Your task to perform on an android device: turn on translation in the chrome app Image 0: 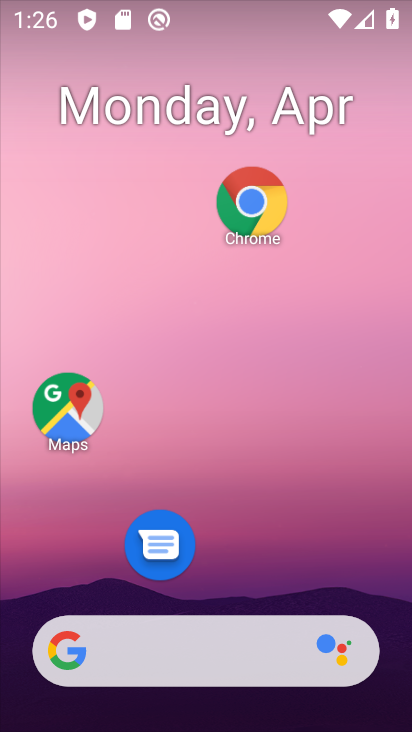
Step 0: click (255, 191)
Your task to perform on an android device: turn on translation in the chrome app Image 1: 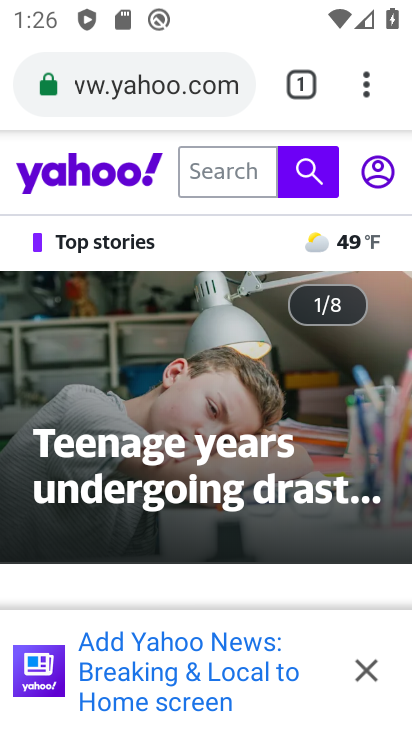
Step 1: click (375, 78)
Your task to perform on an android device: turn on translation in the chrome app Image 2: 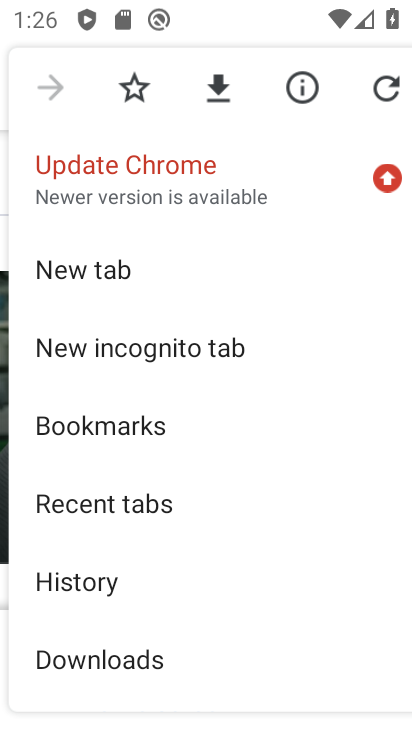
Step 2: drag from (64, 561) to (91, 225)
Your task to perform on an android device: turn on translation in the chrome app Image 3: 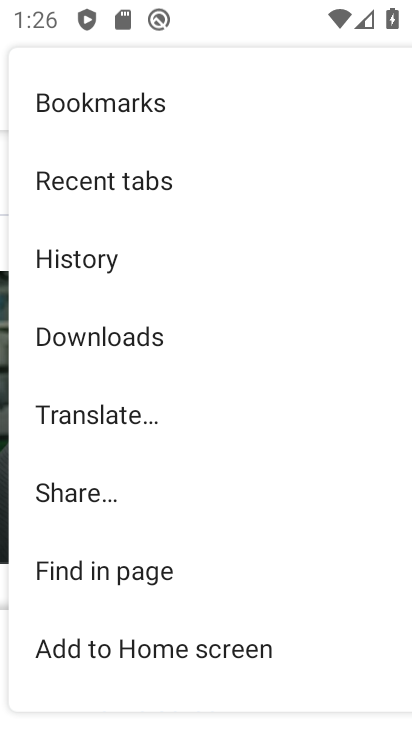
Step 3: drag from (202, 588) to (218, 255)
Your task to perform on an android device: turn on translation in the chrome app Image 4: 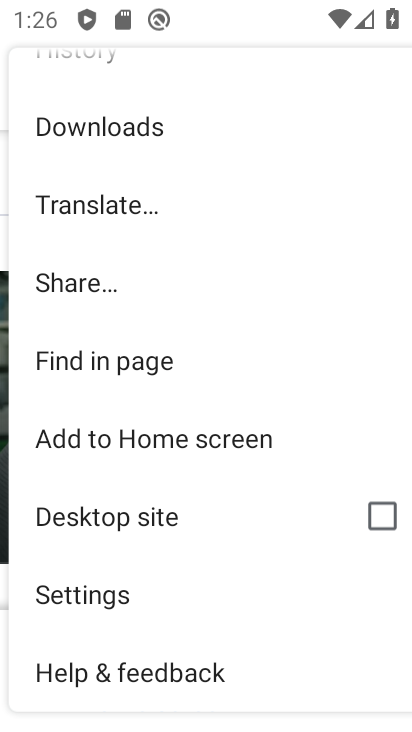
Step 4: click (114, 604)
Your task to perform on an android device: turn on translation in the chrome app Image 5: 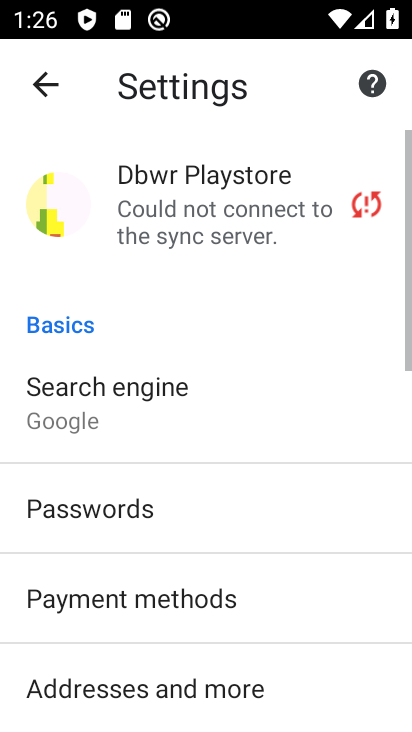
Step 5: drag from (114, 604) to (213, 142)
Your task to perform on an android device: turn on translation in the chrome app Image 6: 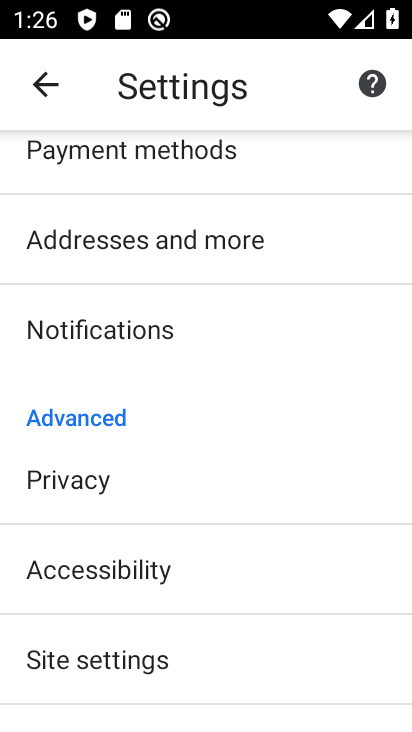
Step 6: drag from (152, 616) to (152, 111)
Your task to perform on an android device: turn on translation in the chrome app Image 7: 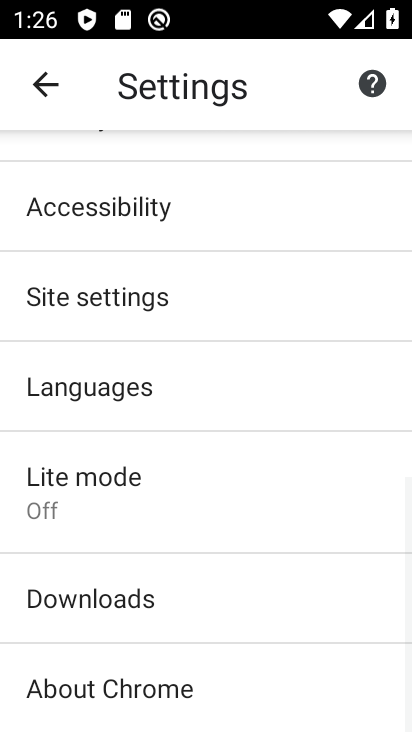
Step 7: click (120, 407)
Your task to perform on an android device: turn on translation in the chrome app Image 8: 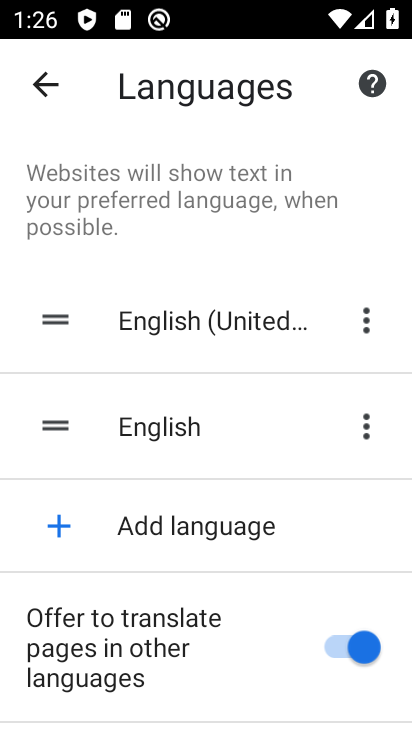
Step 8: task complete